Your task to perform on an android device: change notifications settings Image 0: 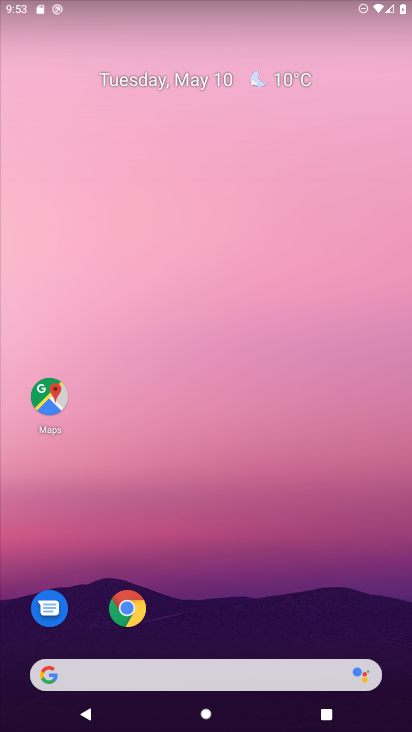
Step 0: drag from (330, 614) to (307, 87)
Your task to perform on an android device: change notifications settings Image 1: 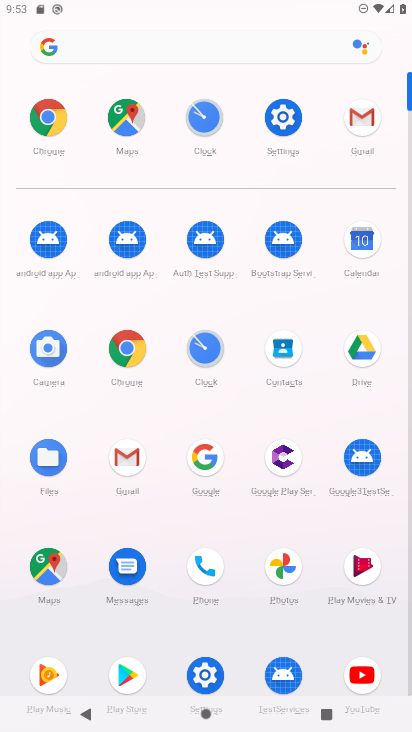
Step 1: click (204, 672)
Your task to perform on an android device: change notifications settings Image 2: 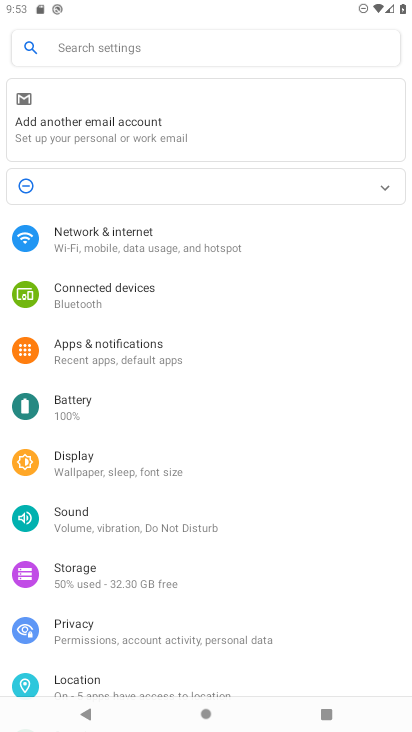
Step 2: click (162, 348)
Your task to perform on an android device: change notifications settings Image 3: 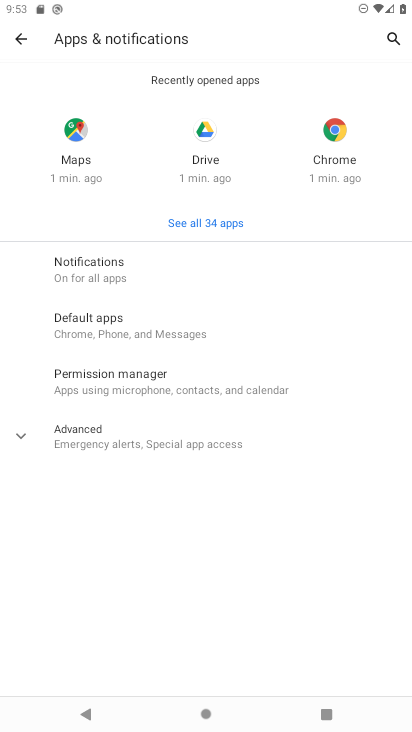
Step 3: click (149, 255)
Your task to perform on an android device: change notifications settings Image 4: 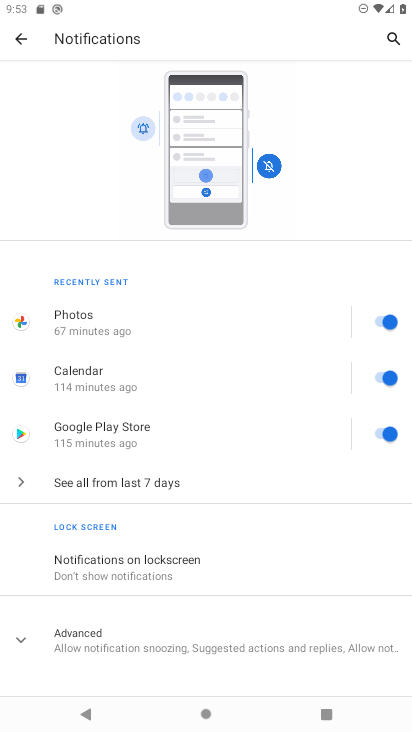
Step 4: task complete